Your task to perform on an android device: open app "Pandora - Music & Podcasts" Image 0: 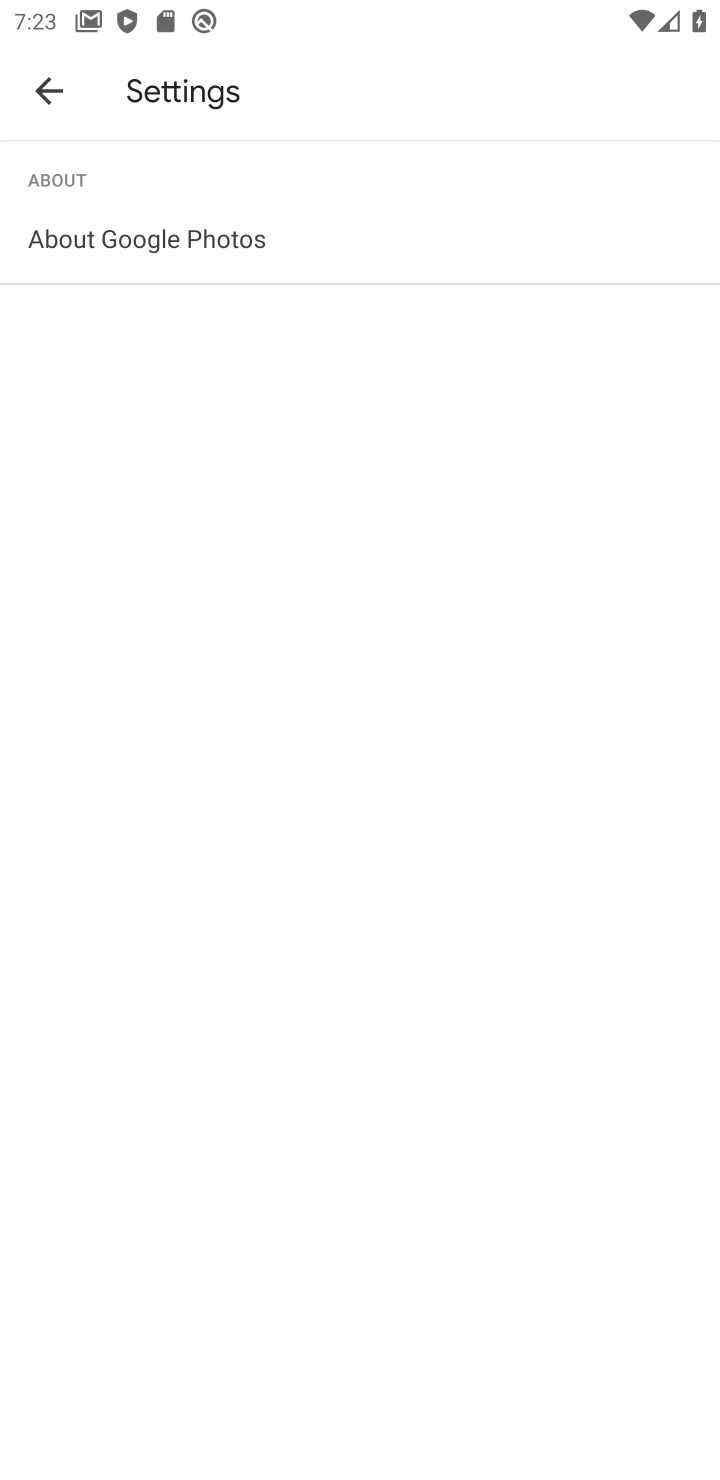
Step 0: press home button
Your task to perform on an android device: open app "Pandora - Music & Podcasts" Image 1: 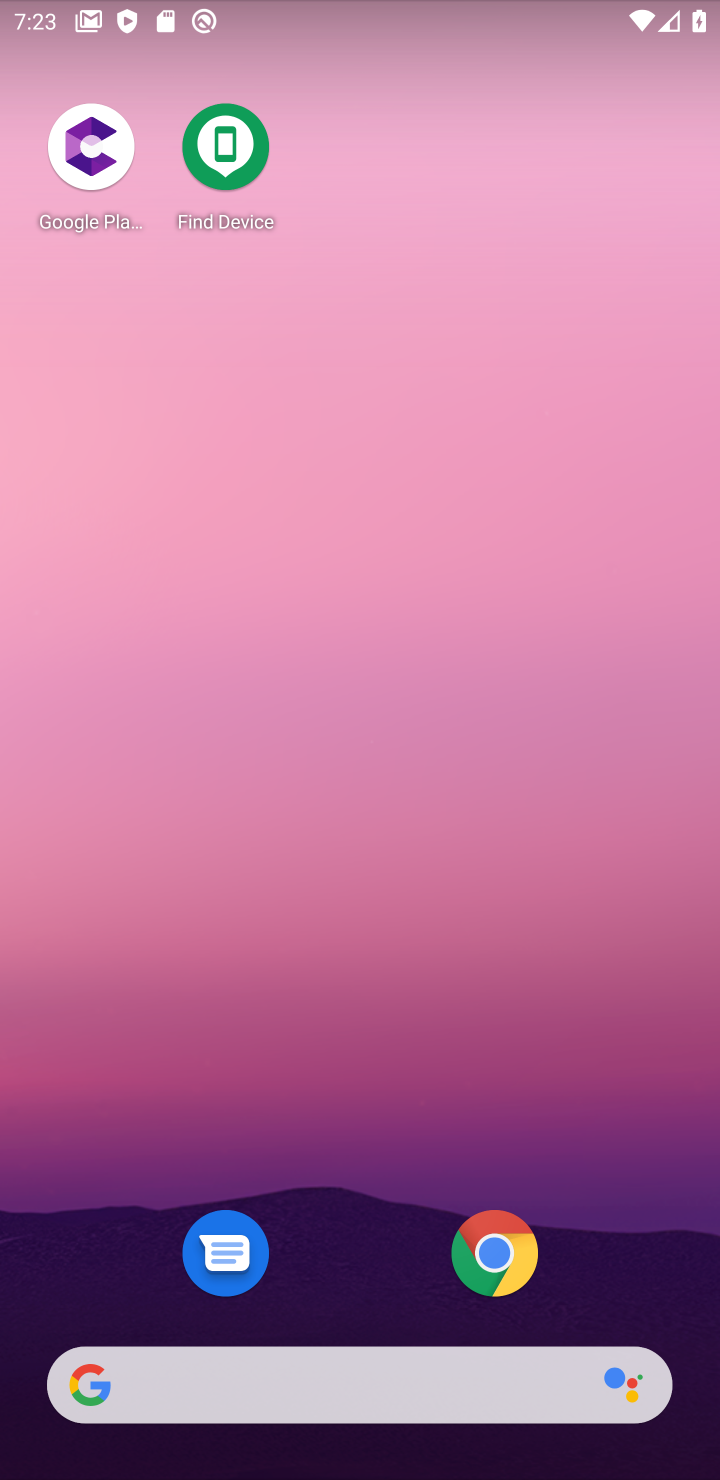
Step 1: drag from (372, 1452) to (392, 44)
Your task to perform on an android device: open app "Pandora - Music & Podcasts" Image 2: 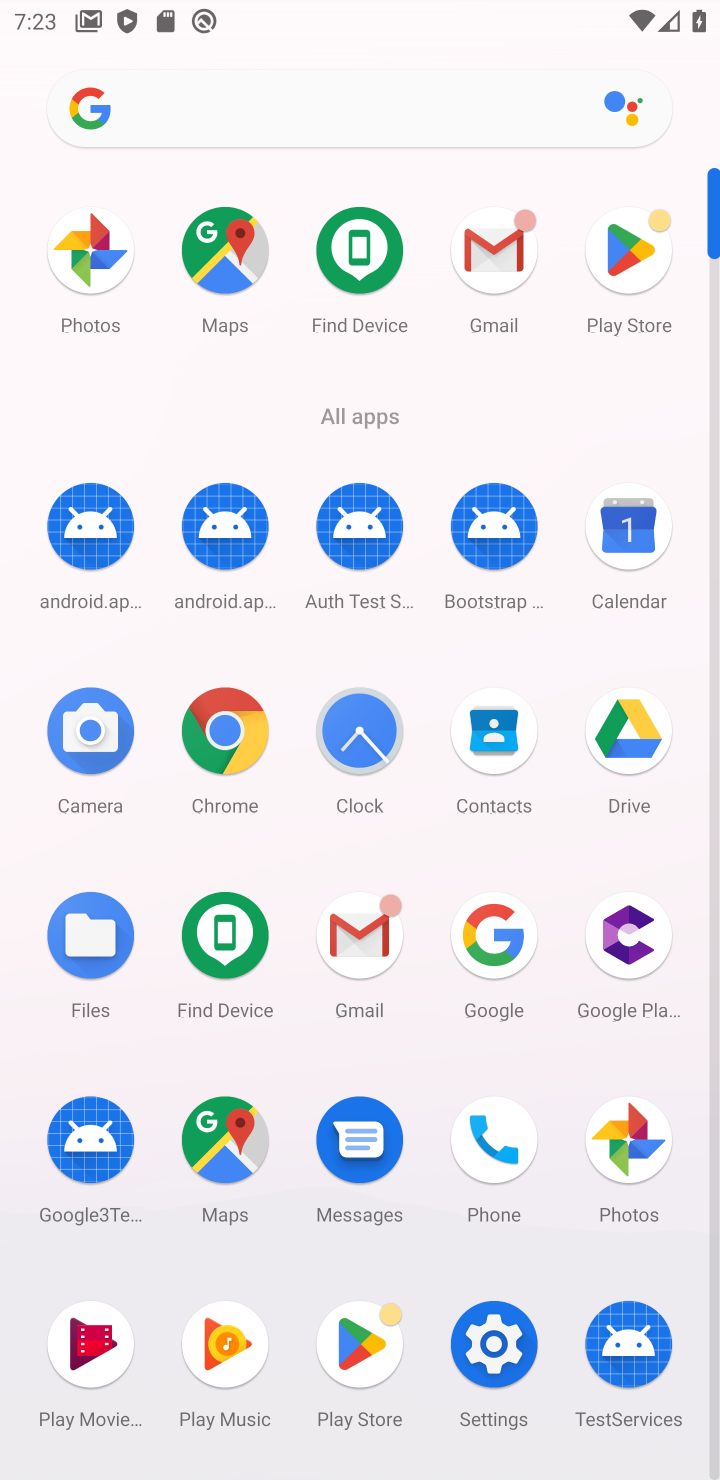
Step 2: click (671, 276)
Your task to perform on an android device: open app "Pandora - Music & Podcasts" Image 3: 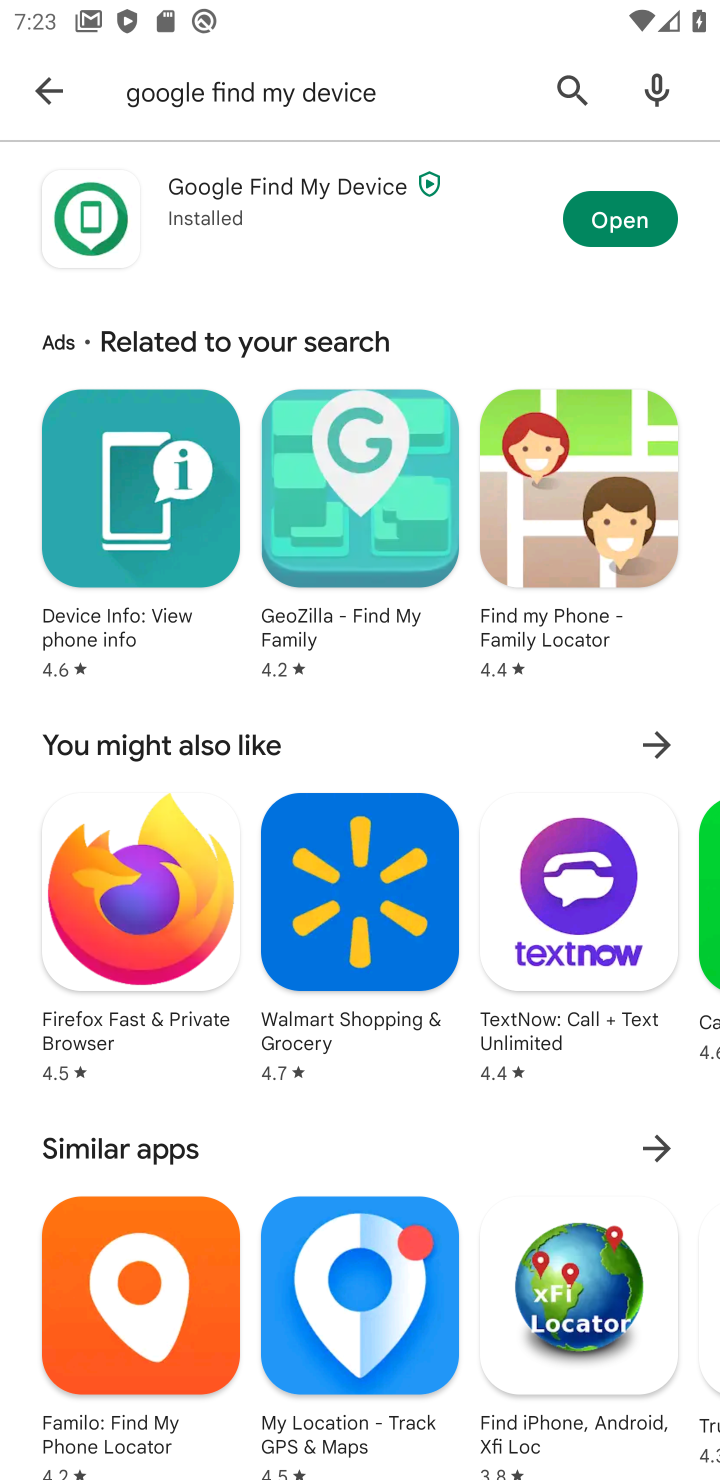
Step 3: click (555, 75)
Your task to perform on an android device: open app "Pandora - Music & Podcasts" Image 4: 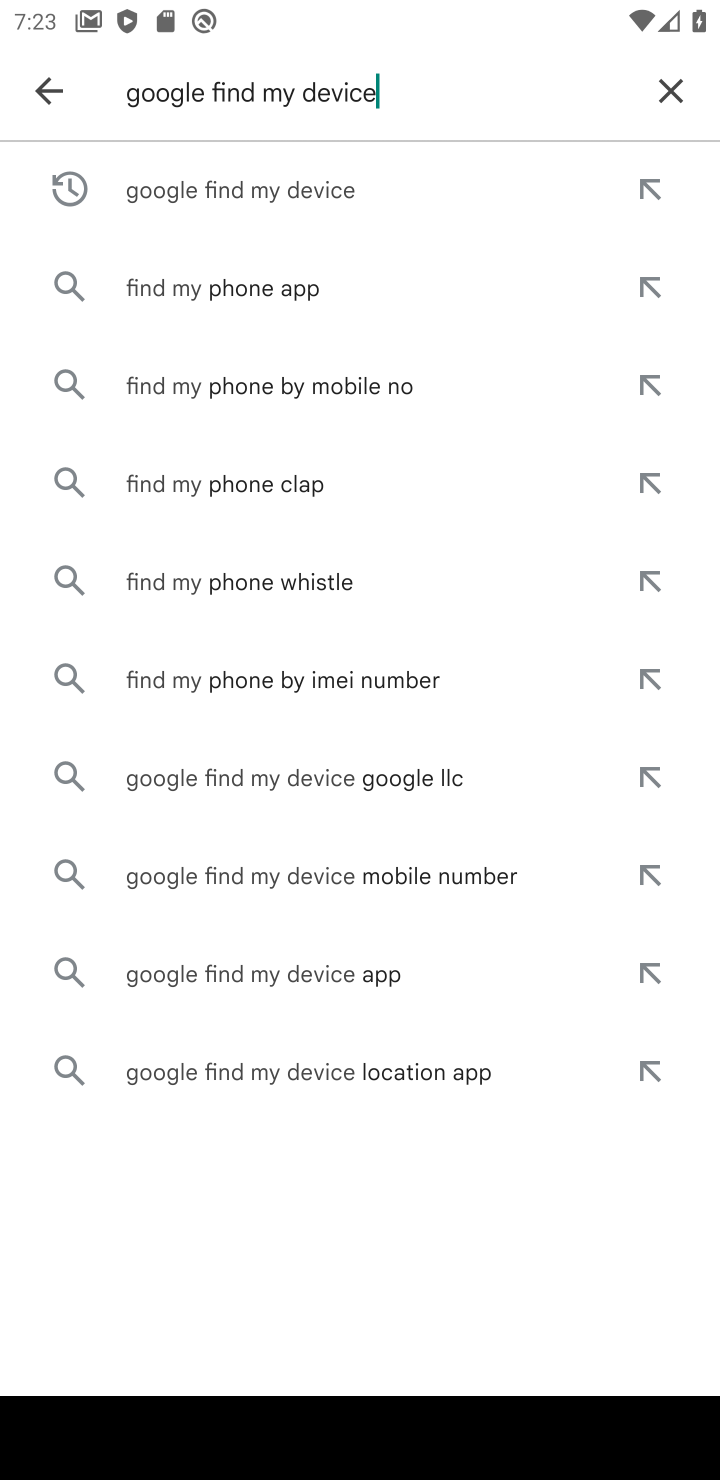
Step 4: click (668, 87)
Your task to perform on an android device: open app "Pandora - Music & Podcasts" Image 5: 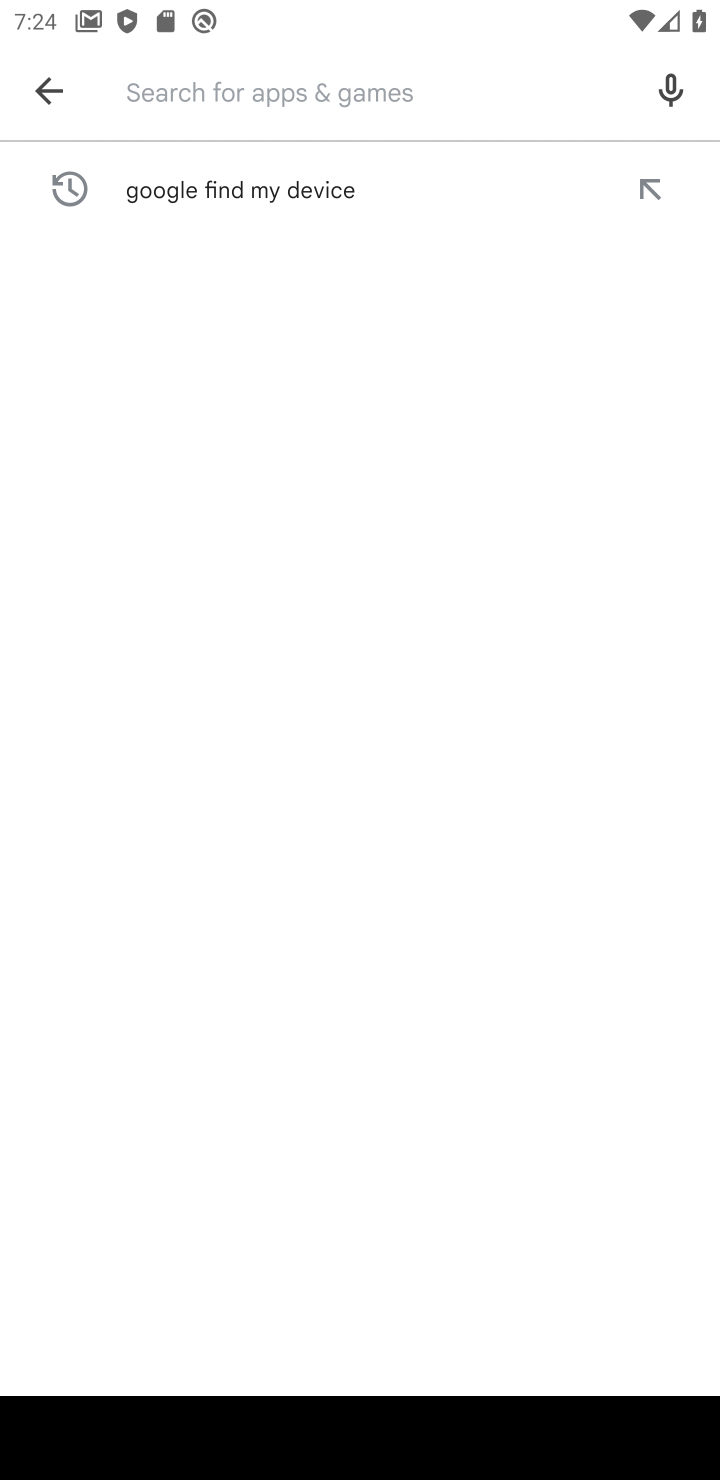
Step 5: type "pandora"
Your task to perform on an android device: open app "Pandora - Music & Podcasts" Image 6: 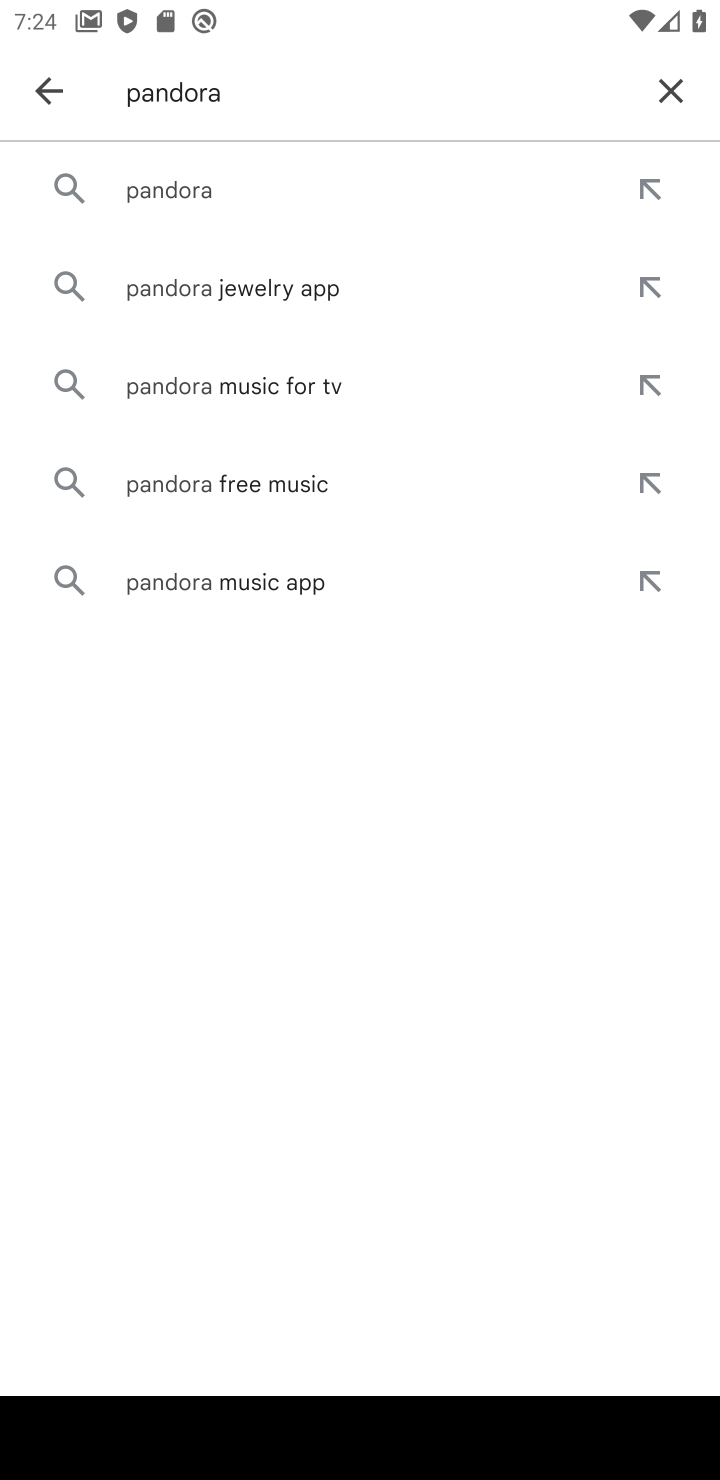
Step 6: type " music and podcast"
Your task to perform on an android device: open app "Pandora - Music & Podcasts" Image 7: 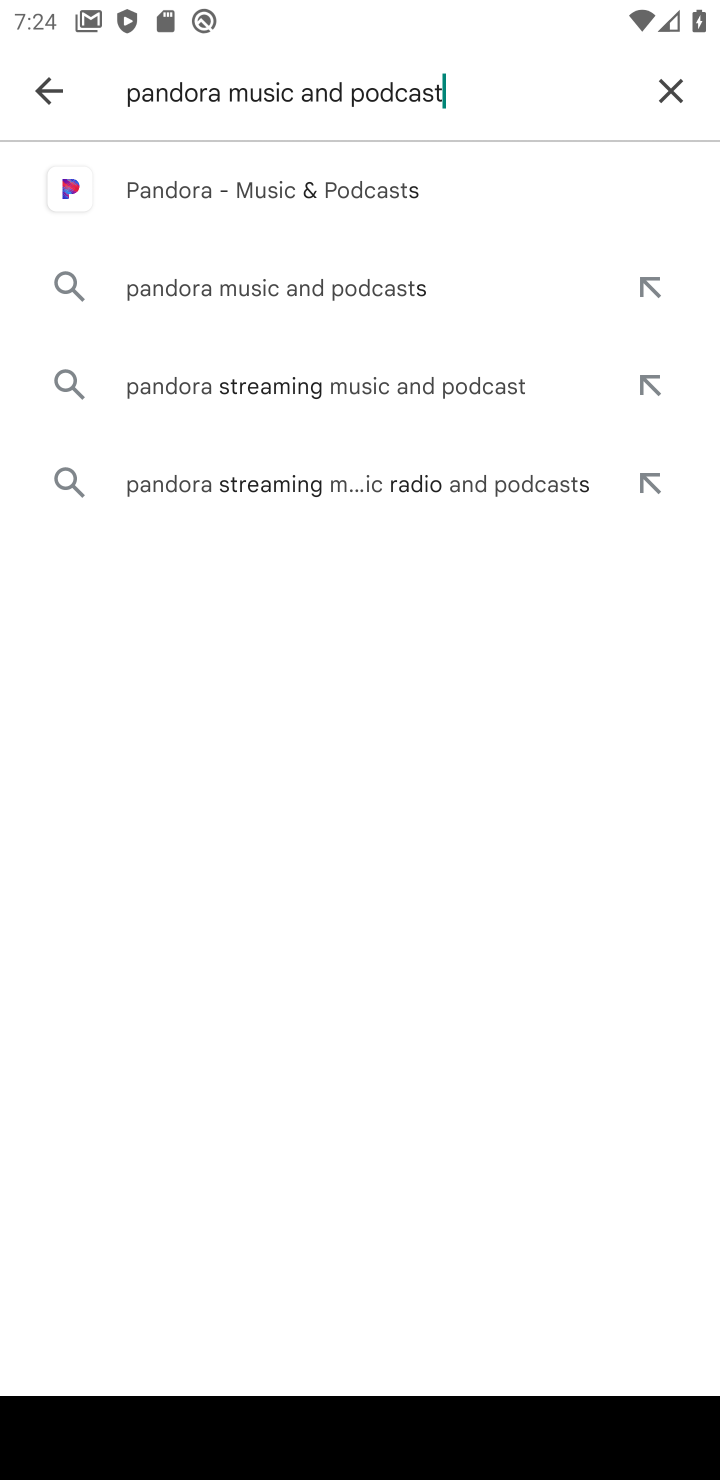
Step 7: click (420, 185)
Your task to perform on an android device: open app "Pandora - Music & Podcasts" Image 8: 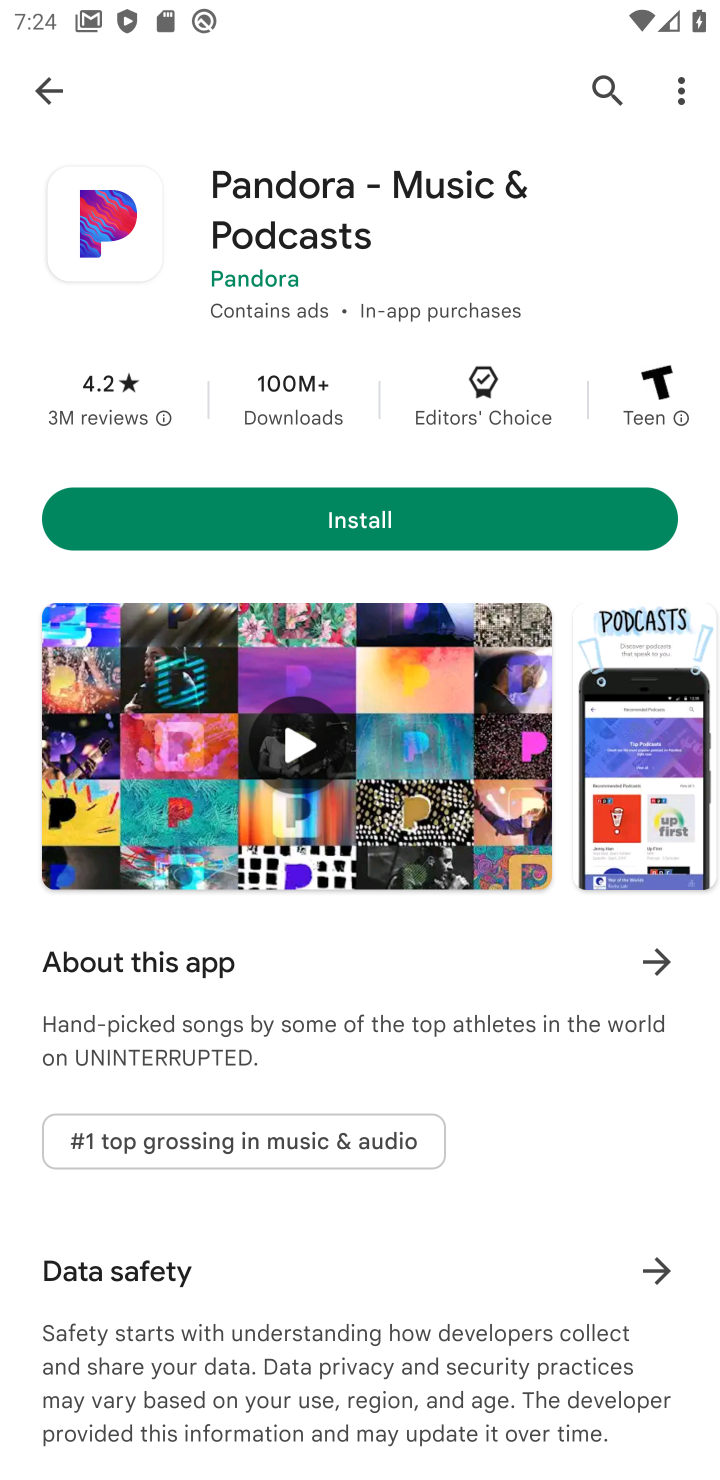
Step 8: task complete